Your task to perform on an android device: Go to sound settings Image 0: 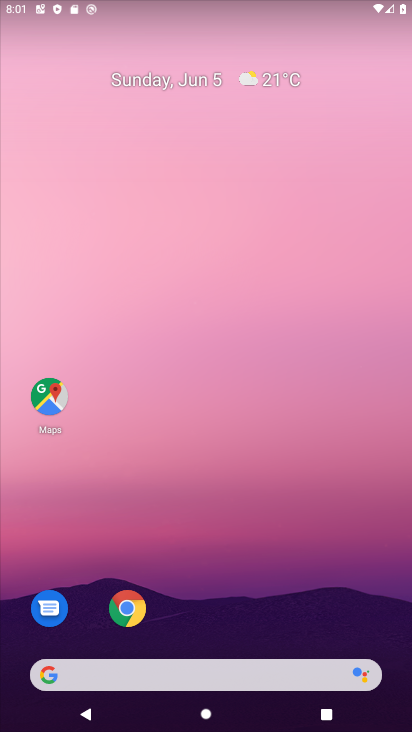
Step 0: press home button
Your task to perform on an android device: Go to sound settings Image 1: 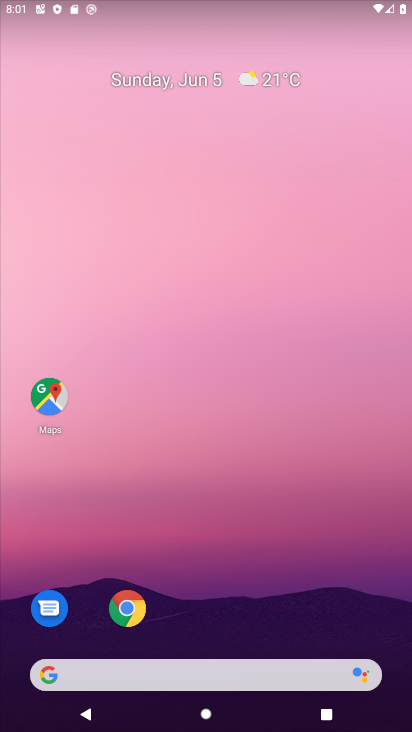
Step 1: drag from (349, 582) to (326, 64)
Your task to perform on an android device: Go to sound settings Image 2: 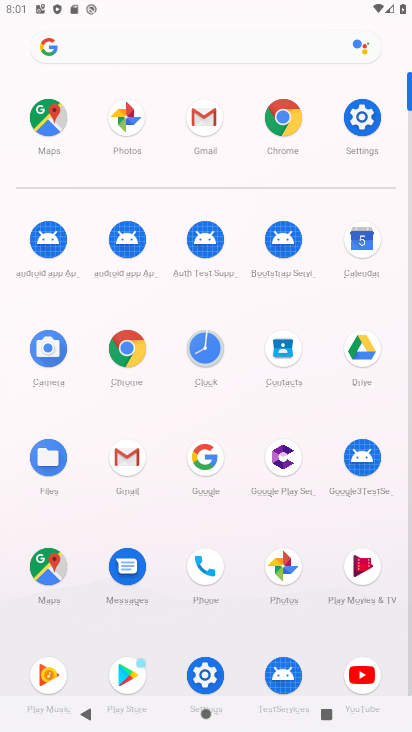
Step 2: click (203, 675)
Your task to perform on an android device: Go to sound settings Image 3: 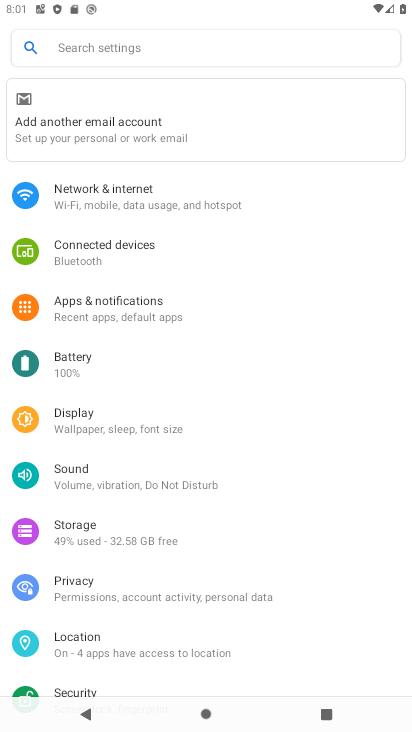
Step 3: click (119, 475)
Your task to perform on an android device: Go to sound settings Image 4: 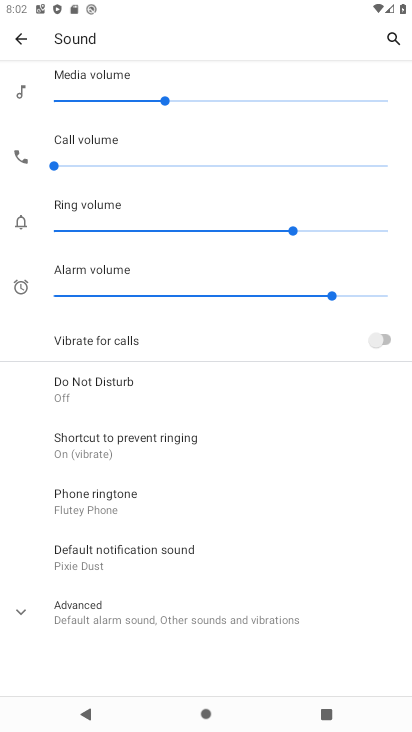
Step 4: task complete